Your task to perform on an android device: Go to CNN.com Image 0: 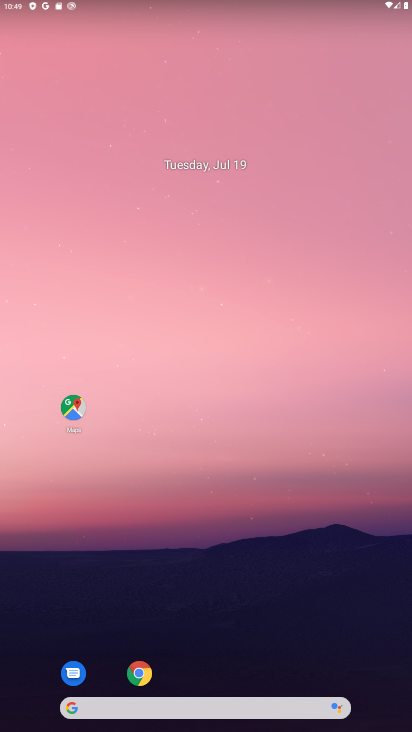
Step 0: click (140, 674)
Your task to perform on an android device: Go to CNN.com Image 1: 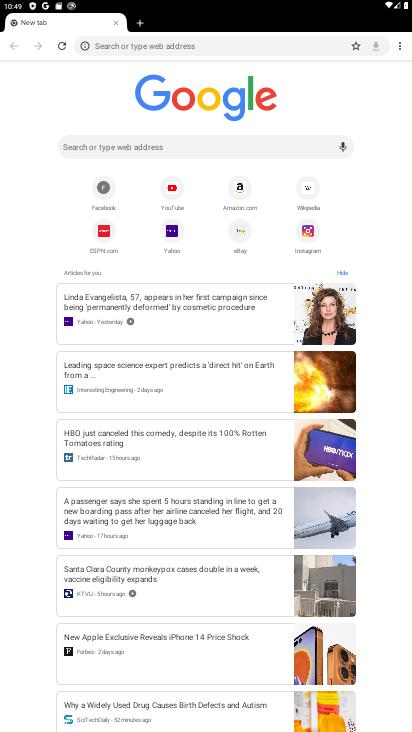
Step 1: click (111, 142)
Your task to perform on an android device: Go to CNN.com Image 2: 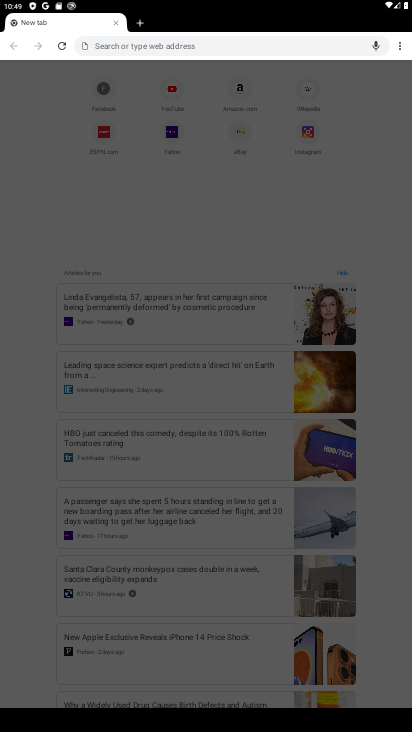
Step 2: type "CNN.com"
Your task to perform on an android device: Go to CNN.com Image 3: 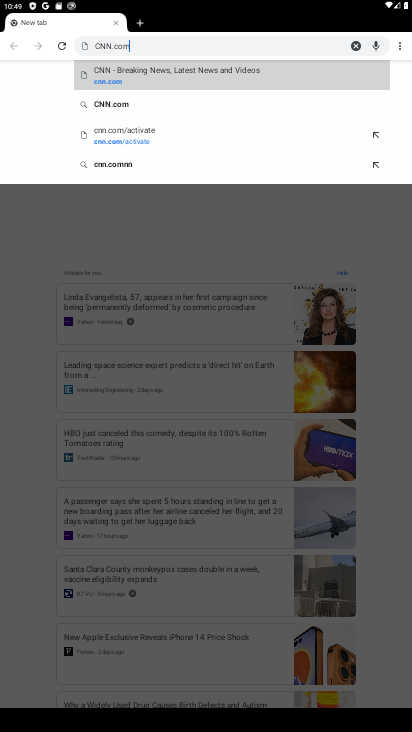
Step 3: click (118, 71)
Your task to perform on an android device: Go to CNN.com Image 4: 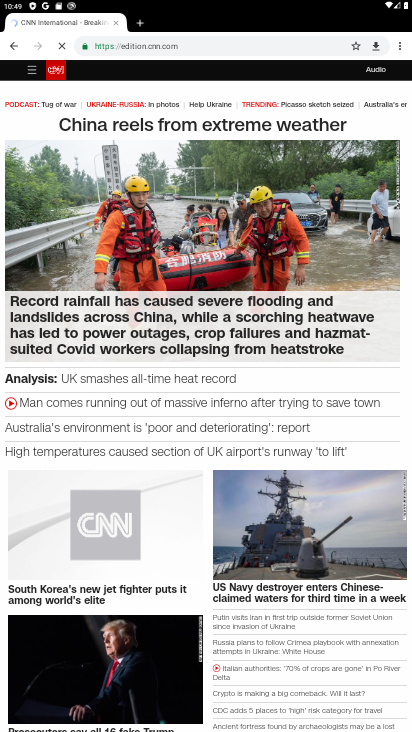
Step 4: drag from (262, 363) to (255, 134)
Your task to perform on an android device: Go to CNN.com Image 5: 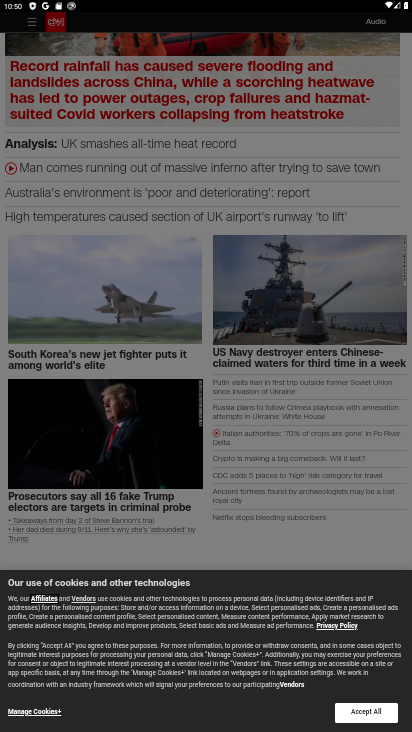
Step 5: click (366, 714)
Your task to perform on an android device: Go to CNN.com Image 6: 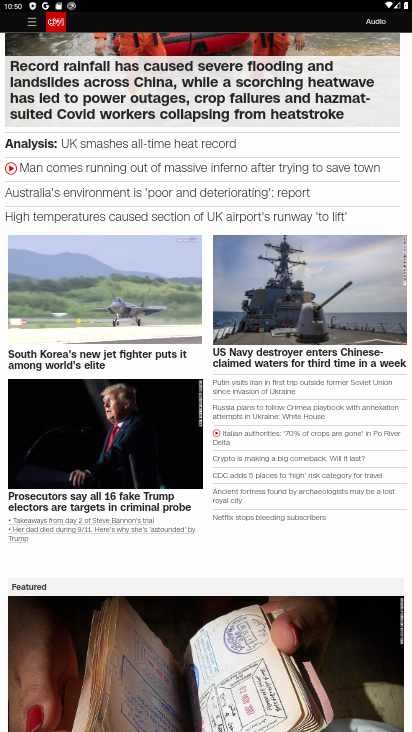
Step 6: task complete